Your task to perform on an android device: Go to ESPN.com Image 0: 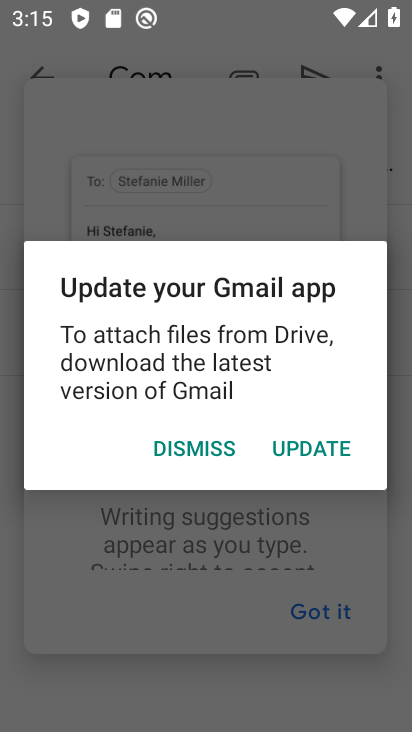
Step 0: press home button
Your task to perform on an android device: Go to ESPN.com Image 1: 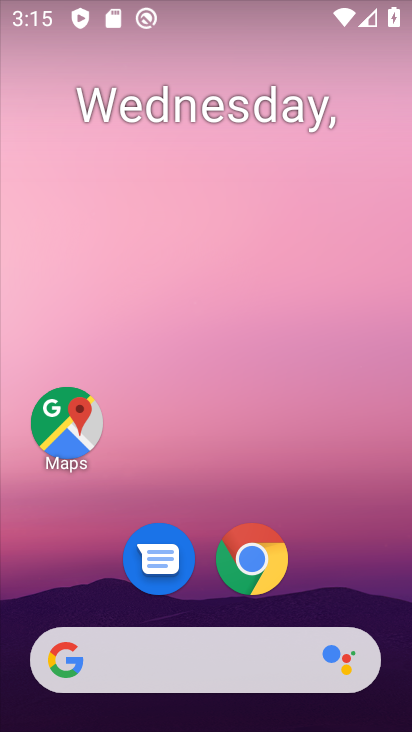
Step 1: click (252, 583)
Your task to perform on an android device: Go to ESPN.com Image 2: 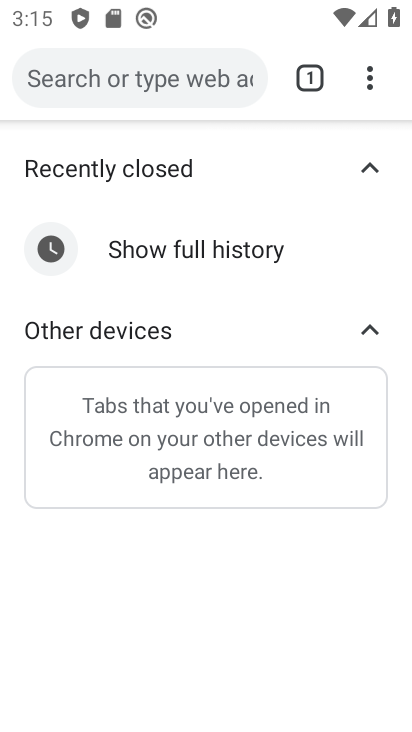
Step 2: drag from (366, 62) to (314, 150)
Your task to perform on an android device: Go to ESPN.com Image 3: 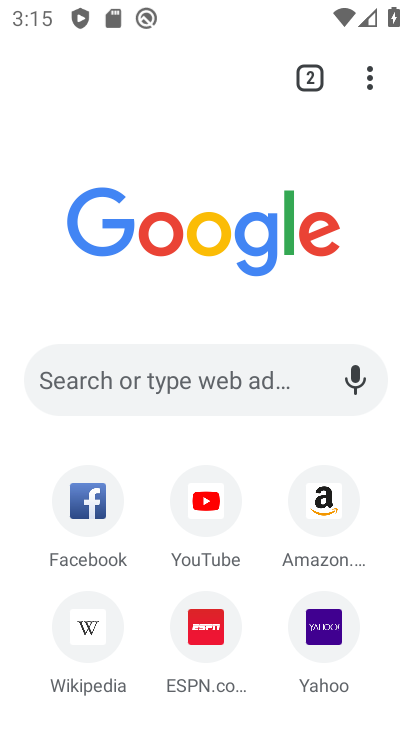
Step 3: click (221, 631)
Your task to perform on an android device: Go to ESPN.com Image 4: 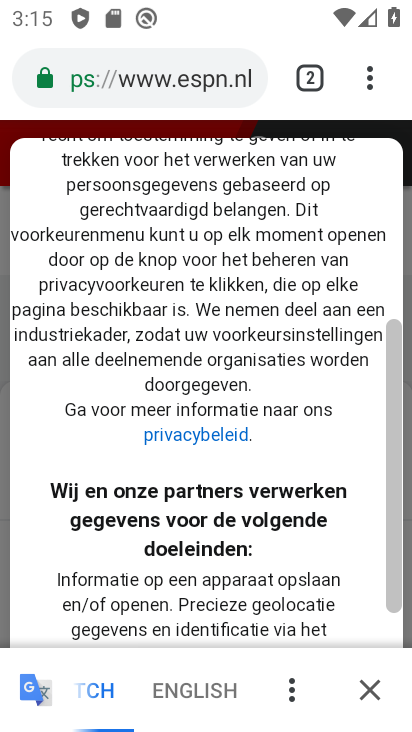
Step 4: click (361, 684)
Your task to perform on an android device: Go to ESPN.com Image 5: 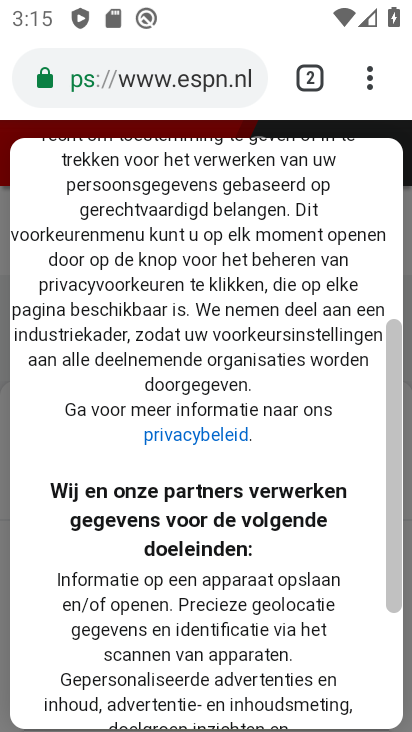
Step 5: drag from (185, 618) to (311, 277)
Your task to perform on an android device: Go to ESPN.com Image 6: 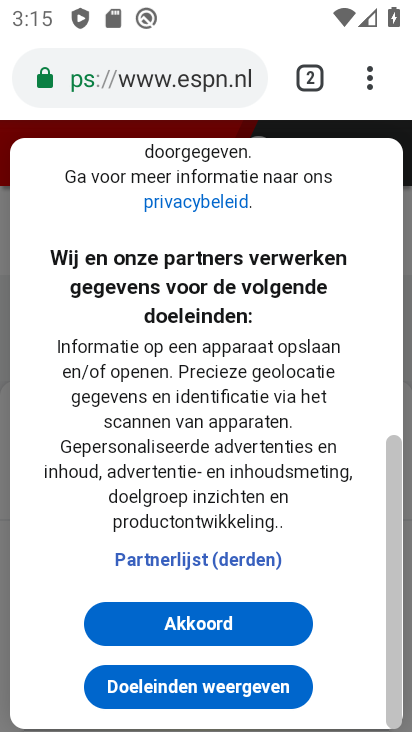
Step 6: click (219, 628)
Your task to perform on an android device: Go to ESPN.com Image 7: 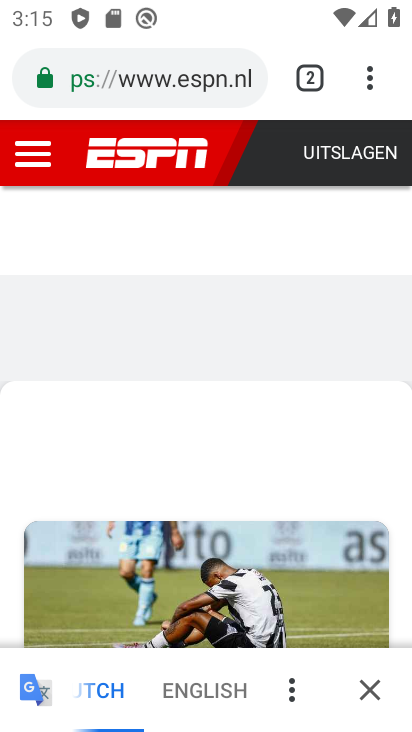
Step 7: task complete